Your task to perform on an android device: Search for Mexican restaurants on Maps Image 0: 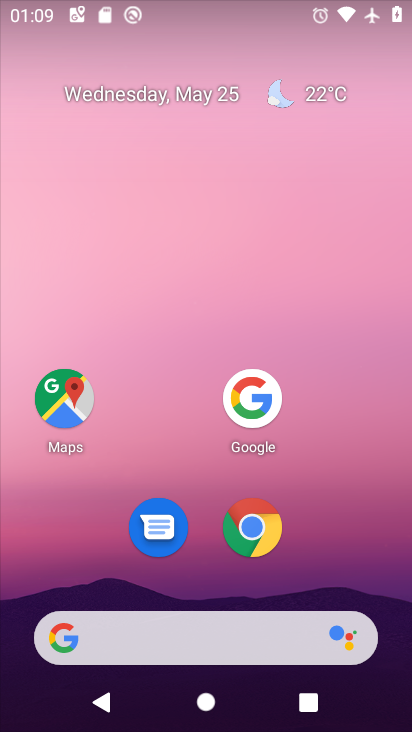
Step 0: press home button
Your task to perform on an android device: Search for Mexican restaurants on Maps Image 1: 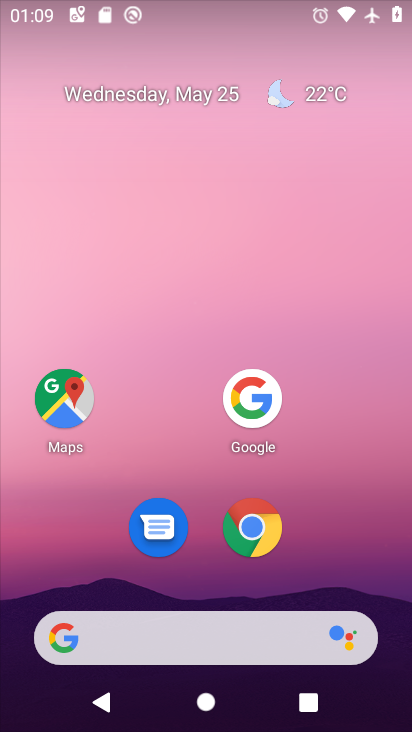
Step 1: click (68, 414)
Your task to perform on an android device: Search for Mexican restaurants on Maps Image 2: 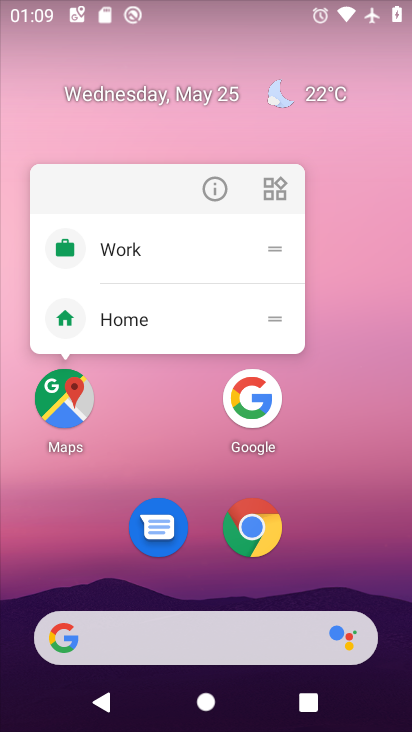
Step 2: click (68, 413)
Your task to perform on an android device: Search for Mexican restaurants on Maps Image 3: 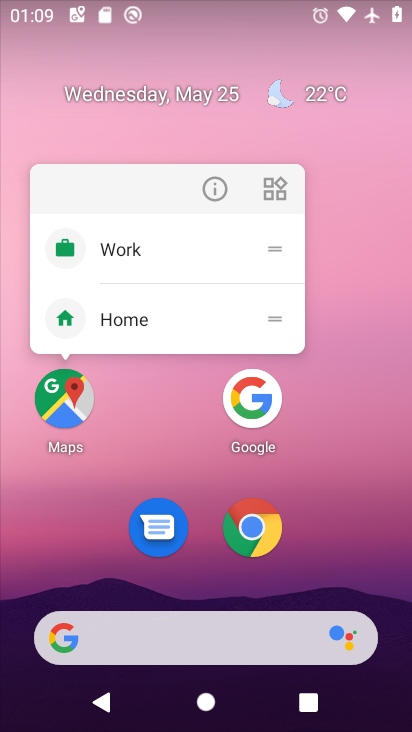
Step 3: click (68, 409)
Your task to perform on an android device: Search for Mexican restaurants on Maps Image 4: 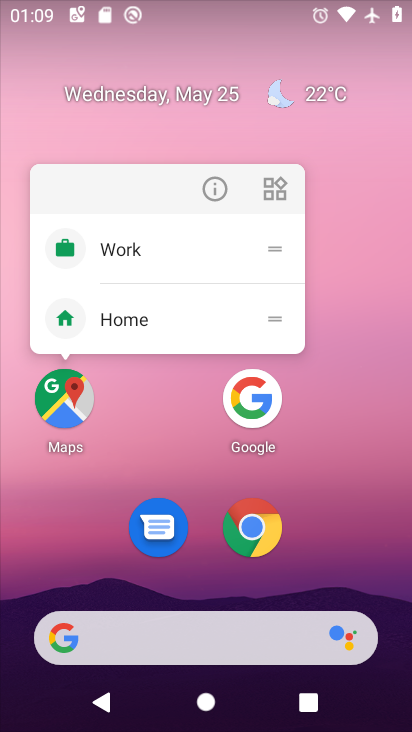
Step 4: click (60, 404)
Your task to perform on an android device: Search for Mexican restaurants on Maps Image 5: 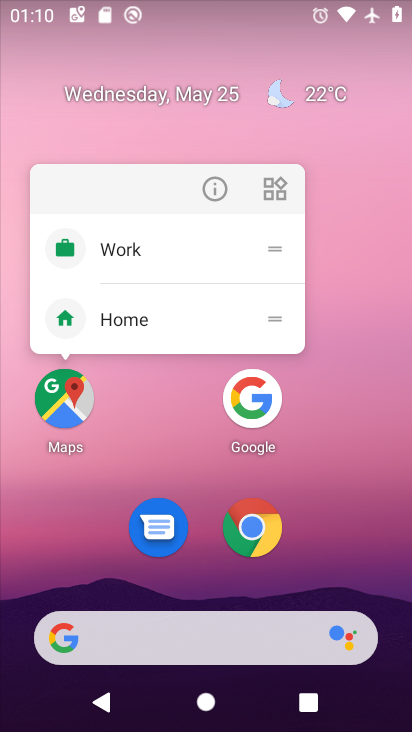
Step 5: click (60, 405)
Your task to perform on an android device: Search for Mexican restaurants on Maps Image 6: 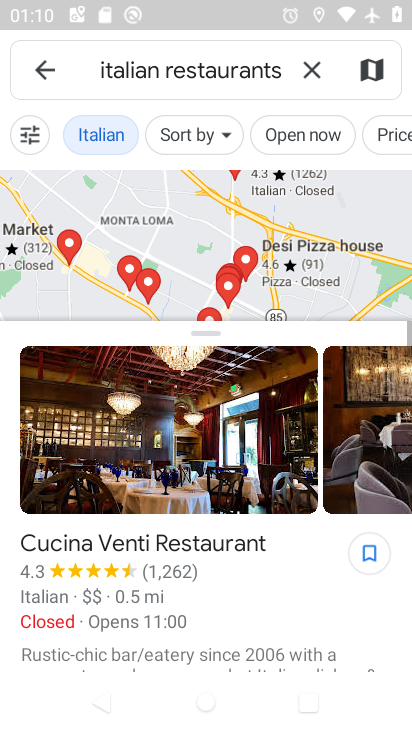
Step 6: click (309, 69)
Your task to perform on an android device: Search for Mexican restaurants on Maps Image 7: 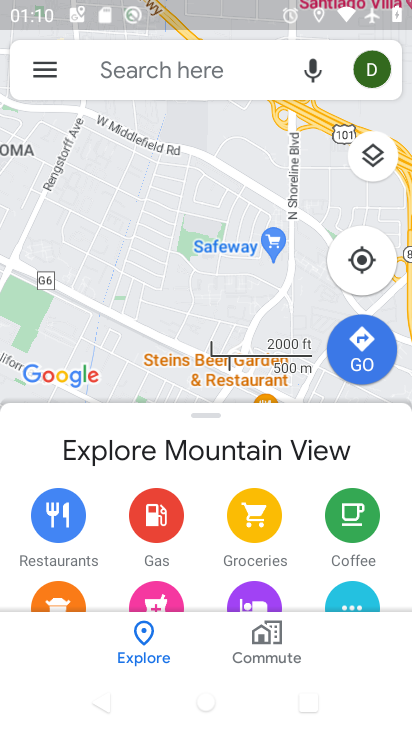
Step 7: click (172, 67)
Your task to perform on an android device: Search for Mexican restaurants on Maps Image 8: 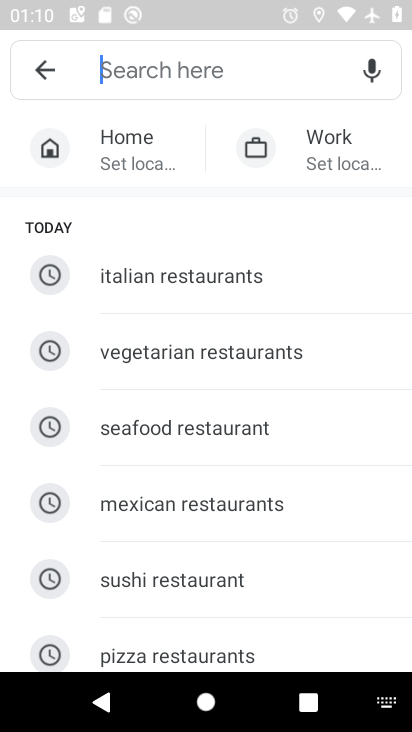
Step 8: click (182, 512)
Your task to perform on an android device: Search for Mexican restaurants on Maps Image 9: 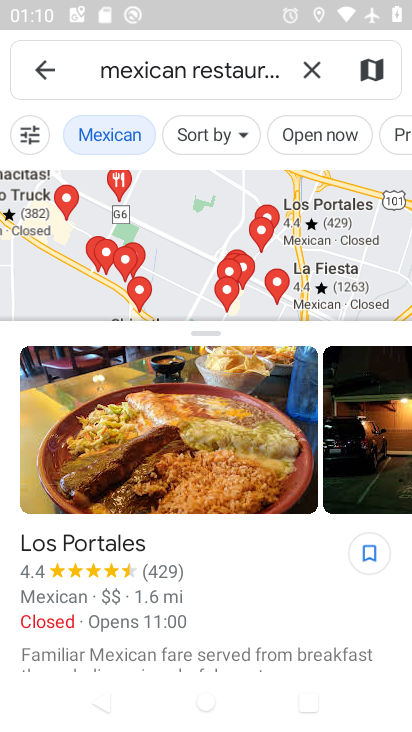
Step 9: task complete